Your task to perform on an android device: Open Google Maps Image 0: 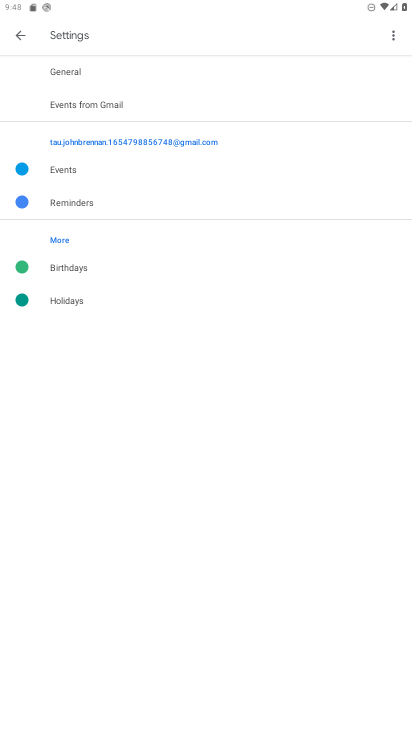
Step 0: press home button
Your task to perform on an android device: Open Google Maps Image 1: 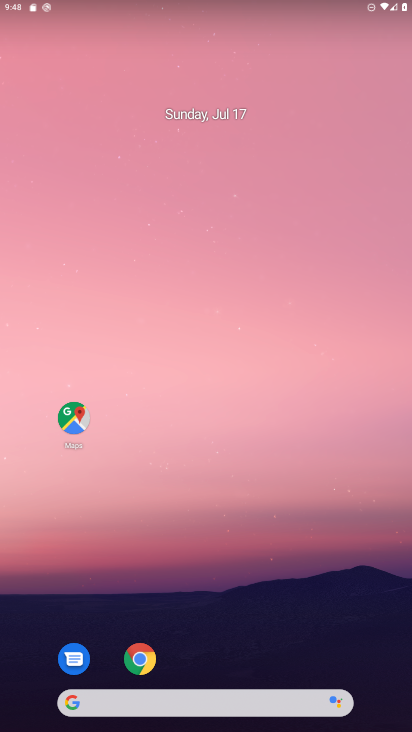
Step 1: click (77, 416)
Your task to perform on an android device: Open Google Maps Image 2: 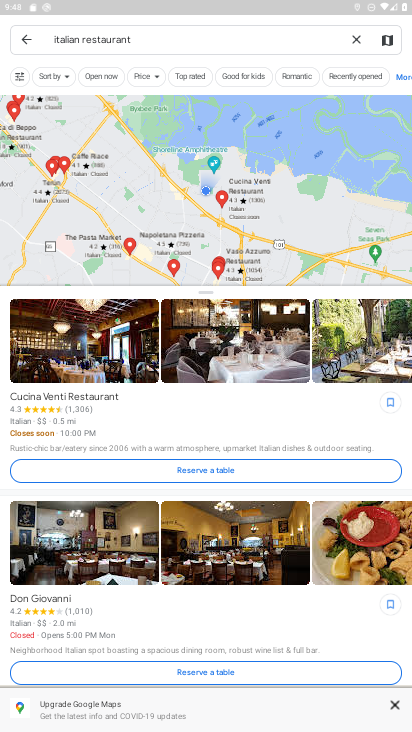
Step 2: task complete